Your task to perform on an android device: Open calendar and show me the first week of next month Image 0: 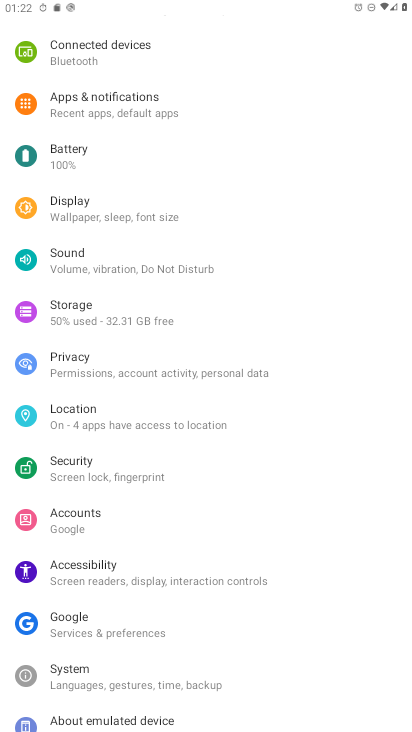
Step 0: press home button
Your task to perform on an android device: Open calendar and show me the first week of next month Image 1: 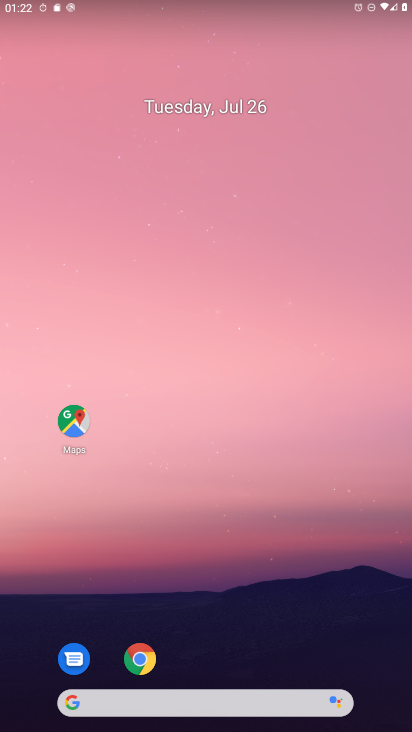
Step 1: drag from (269, 650) to (302, 61)
Your task to perform on an android device: Open calendar and show me the first week of next month Image 2: 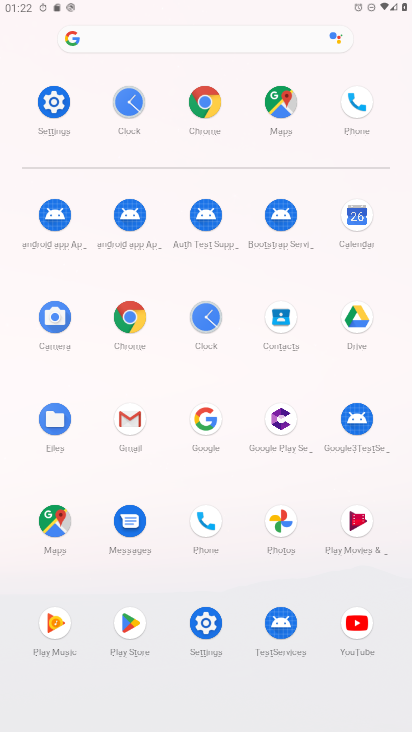
Step 2: click (359, 212)
Your task to perform on an android device: Open calendar and show me the first week of next month Image 3: 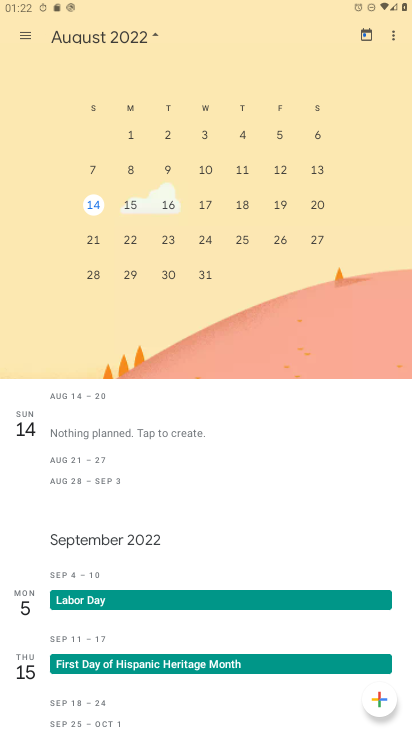
Step 3: click (272, 131)
Your task to perform on an android device: Open calendar and show me the first week of next month Image 4: 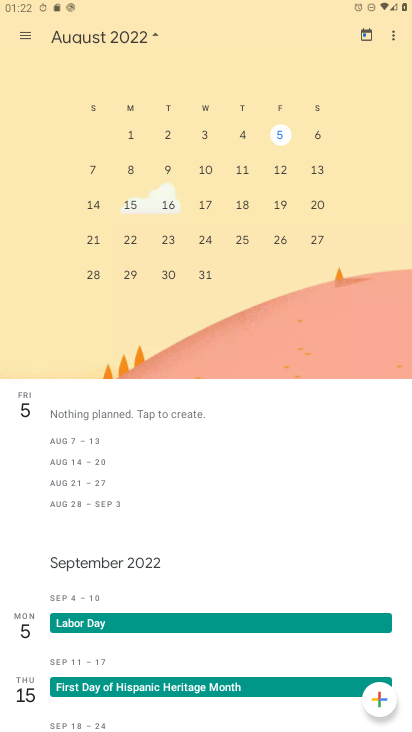
Step 4: task complete